Your task to perform on an android device: Open calendar and show me the fourth week of next month Image 0: 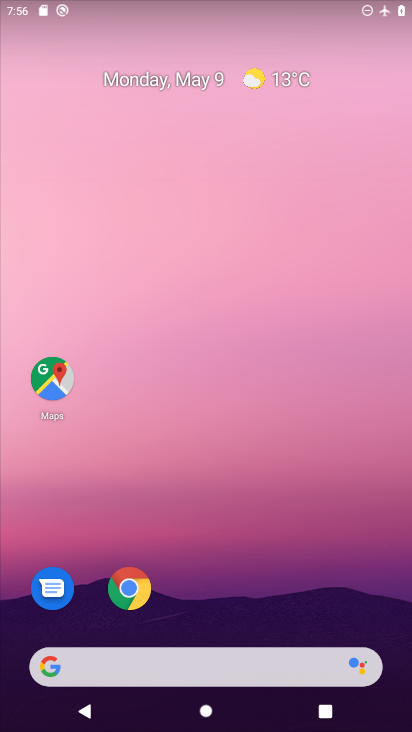
Step 0: drag from (255, 564) to (231, 264)
Your task to perform on an android device: Open calendar and show me the fourth week of next month Image 1: 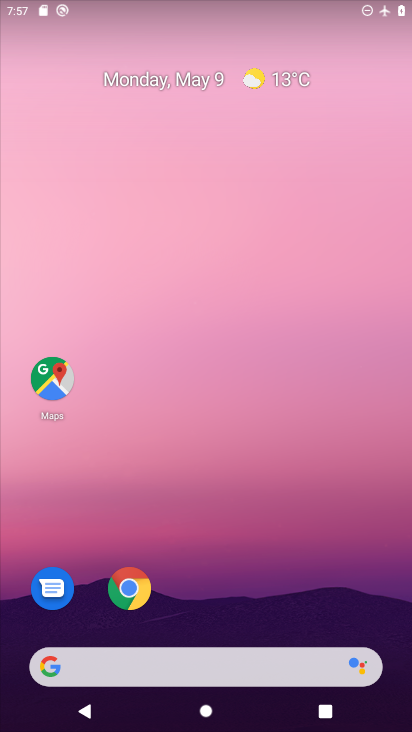
Step 1: drag from (203, 549) to (107, 162)
Your task to perform on an android device: Open calendar and show me the fourth week of next month Image 2: 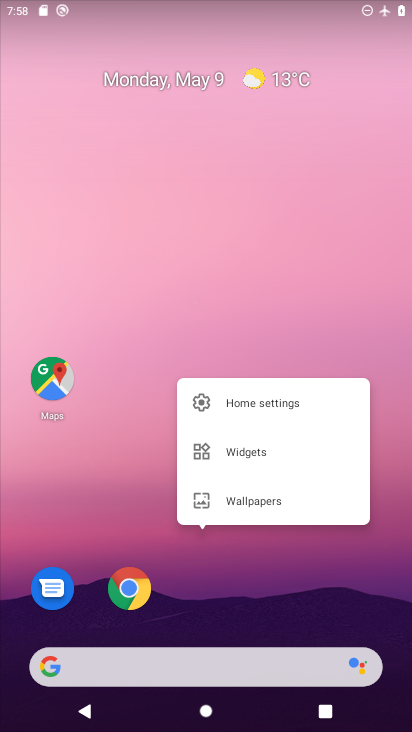
Step 2: click (120, 503)
Your task to perform on an android device: Open calendar and show me the fourth week of next month Image 3: 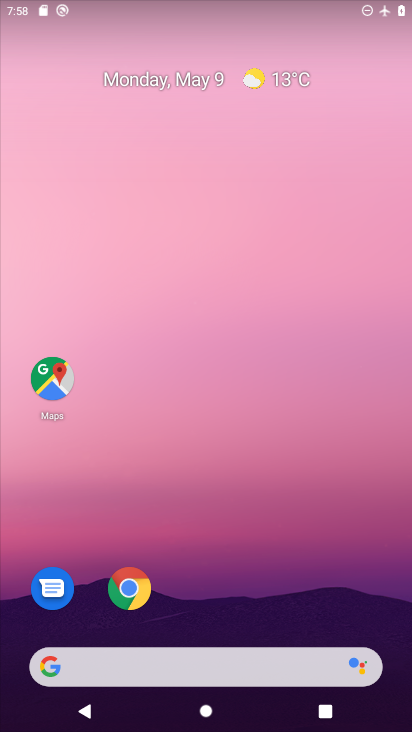
Step 3: drag from (120, 503) to (171, 33)
Your task to perform on an android device: Open calendar and show me the fourth week of next month Image 4: 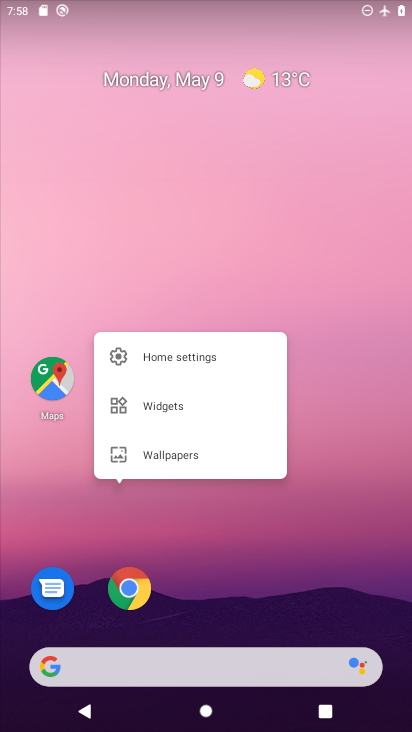
Step 4: click (321, 541)
Your task to perform on an android device: Open calendar and show me the fourth week of next month Image 5: 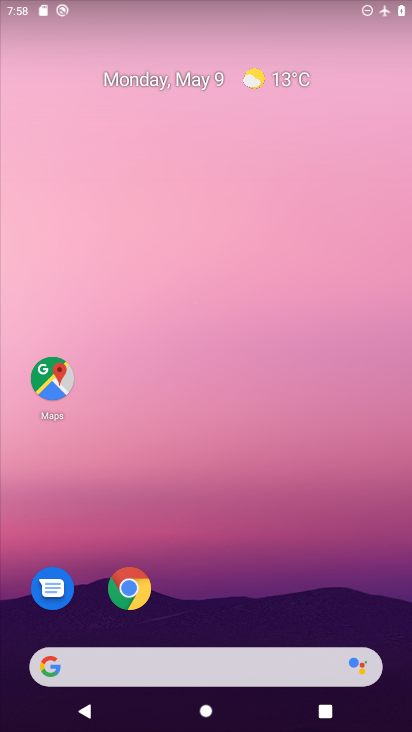
Step 5: drag from (321, 541) to (265, 152)
Your task to perform on an android device: Open calendar and show me the fourth week of next month Image 6: 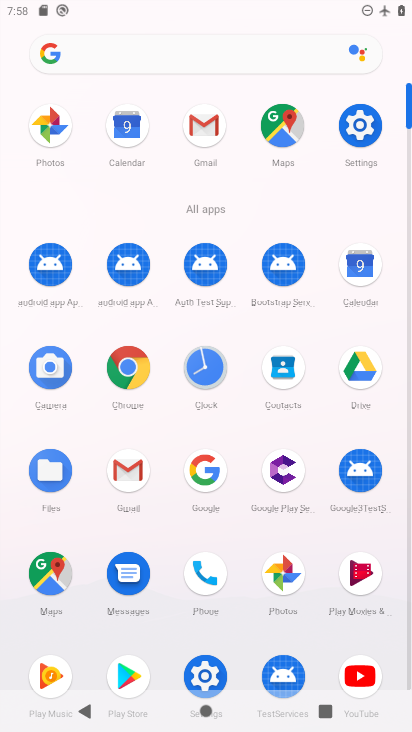
Step 6: click (130, 134)
Your task to perform on an android device: Open calendar and show me the fourth week of next month Image 7: 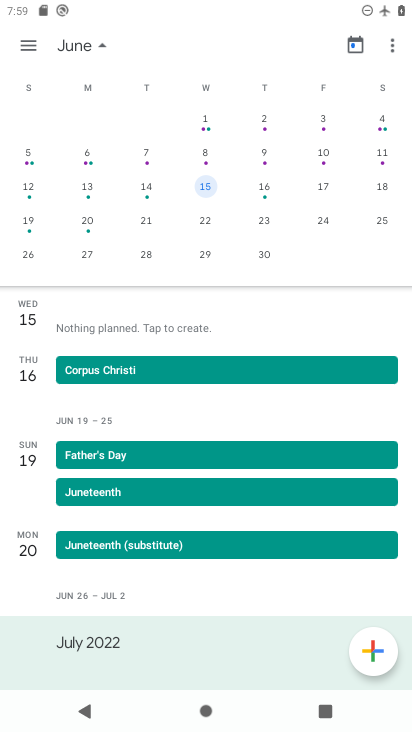
Step 7: drag from (382, 185) to (86, 93)
Your task to perform on an android device: Open calendar and show me the fourth week of next month Image 8: 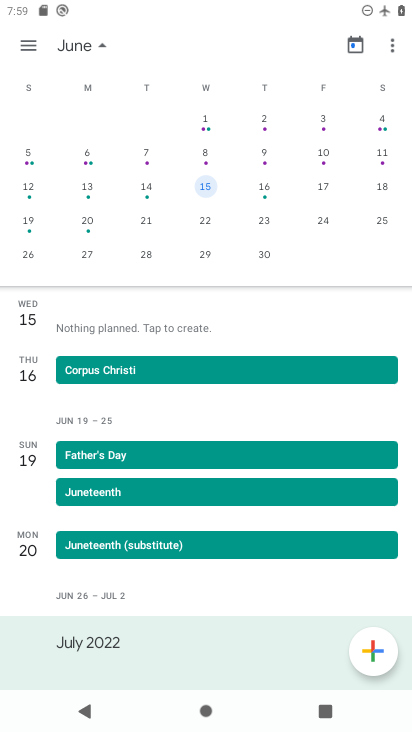
Step 8: click (193, 219)
Your task to perform on an android device: Open calendar and show me the fourth week of next month Image 9: 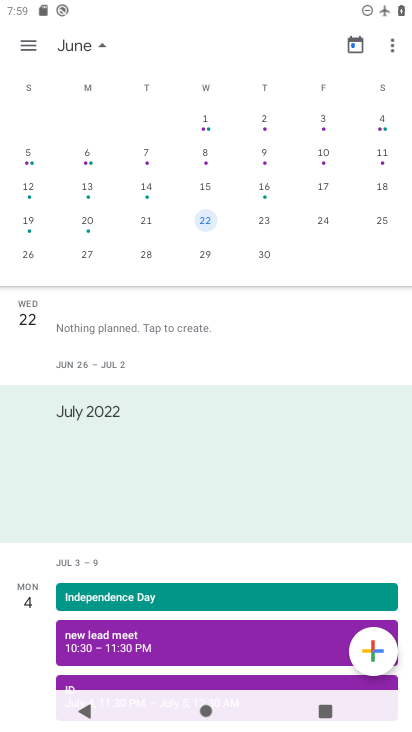
Step 9: task complete